Your task to perform on an android device: turn off picture-in-picture Image 0: 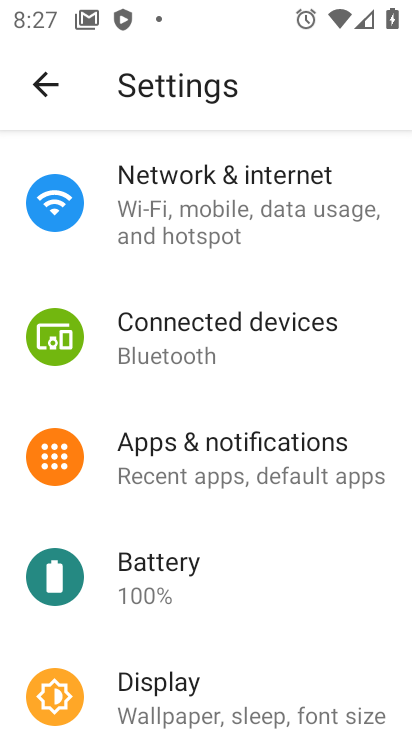
Step 0: press home button
Your task to perform on an android device: turn off picture-in-picture Image 1: 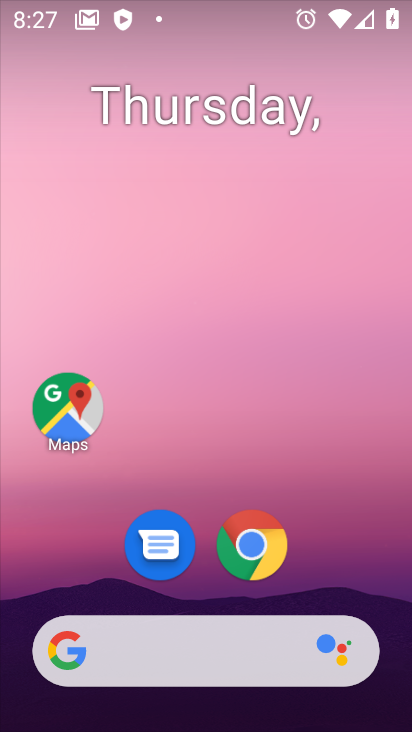
Step 1: click (249, 544)
Your task to perform on an android device: turn off picture-in-picture Image 2: 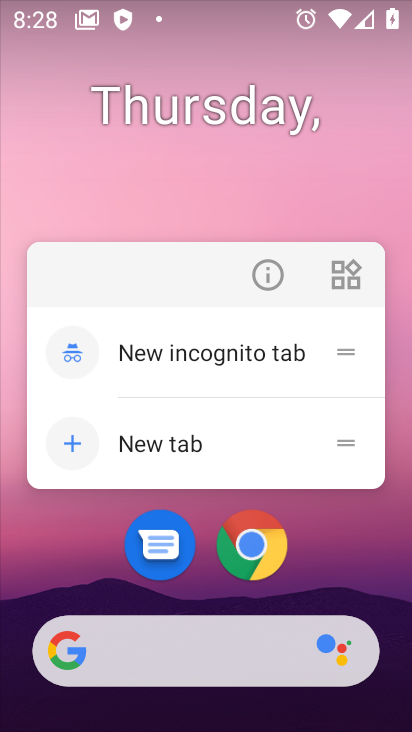
Step 2: click (282, 290)
Your task to perform on an android device: turn off picture-in-picture Image 3: 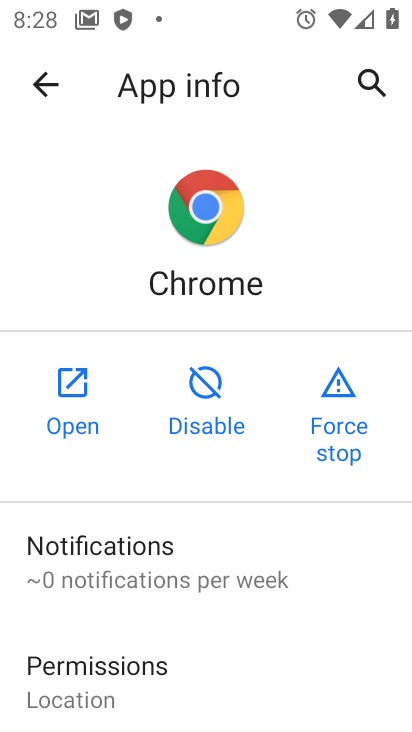
Step 3: drag from (267, 668) to (241, 204)
Your task to perform on an android device: turn off picture-in-picture Image 4: 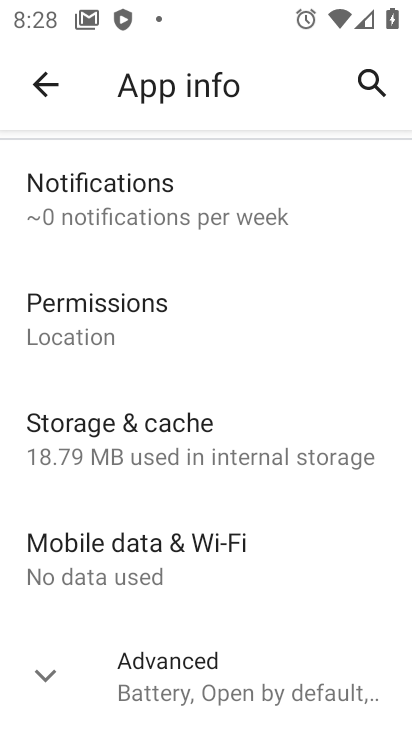
Step 4: click (246, 697)
Your task to perform on an android device: turn off picture-in-picture Image 5: 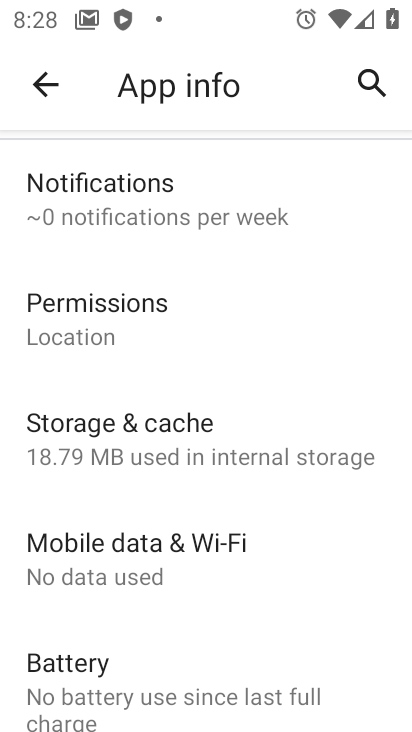
Step 5: drag from (246, 697) to (231, 429)
Your task to perform on an android device: turn off picture-in-picture Image 6: 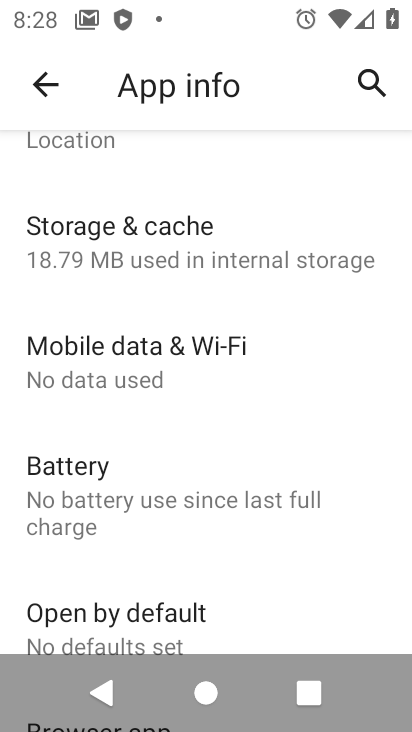
Step 6: drag from (80, 611) to (101, 291)
Your task to perform on an android device: turn off picture-in-picture Image 7: 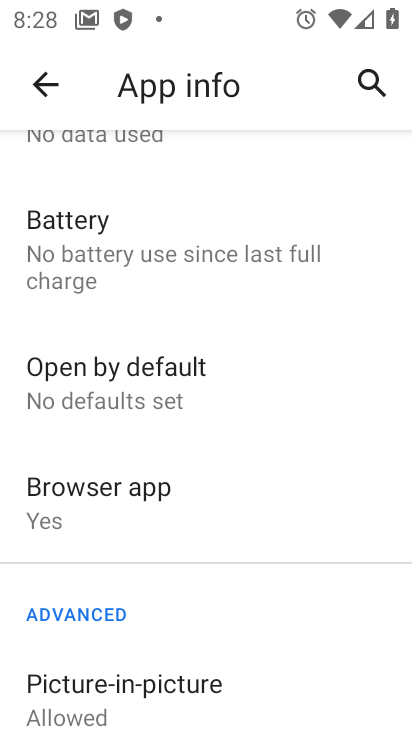
Step 7: click (133, 724)
Your task to perform on an android device: turn off picture-in-picture Image 8: 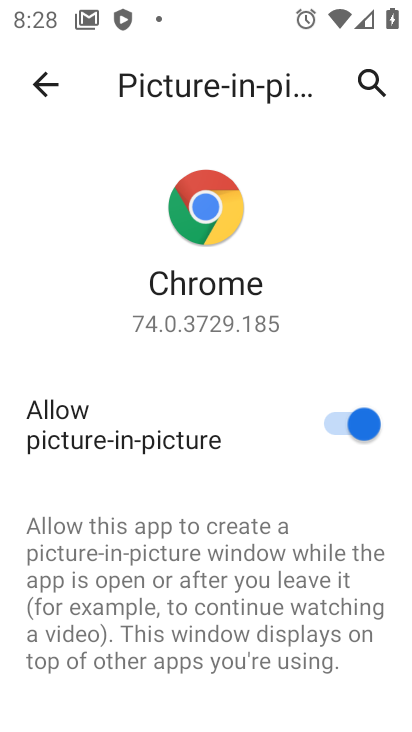
Step 8: click (342, 415)
Your task to perform on an android device: turn off picture-in-picture Image 9: 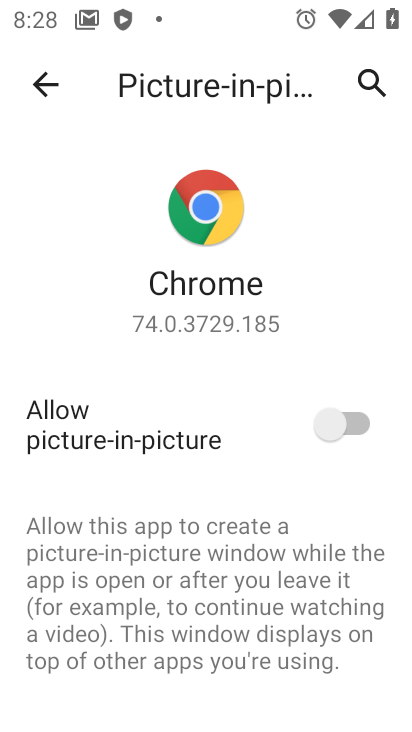
Step 9: task complete